Your task to perform on an android device: find snoozed emails in the gmail app Image 0: 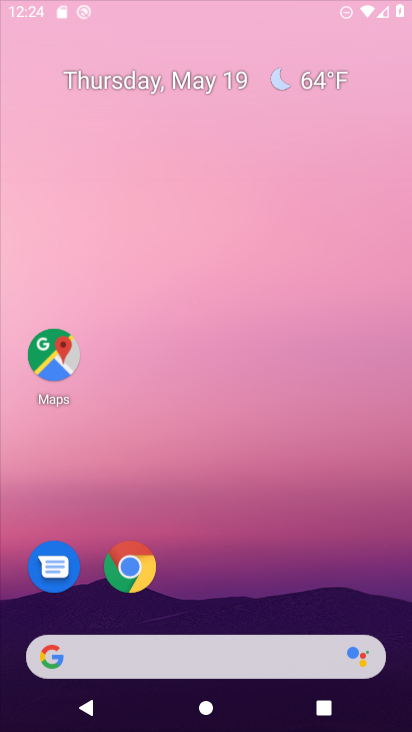
Step 0: drag from (260, 547) to (243, 59)
Your task to perform on an android device: find snoozed emails in the gmail app Image 1: 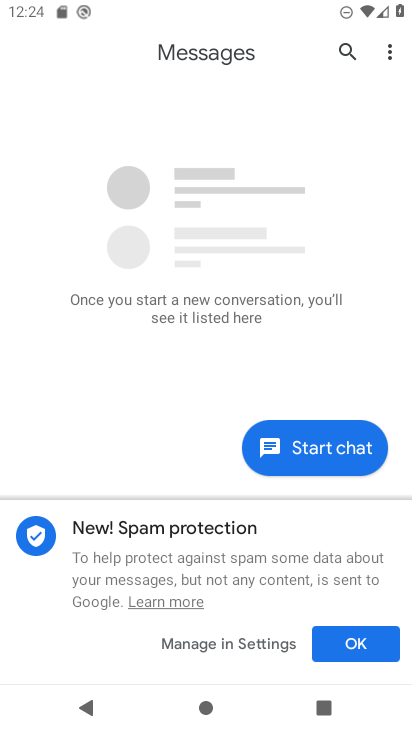
Step 1: press home button
Your task to perform on an android device: find snoozed emails in the gmail app Image 2: 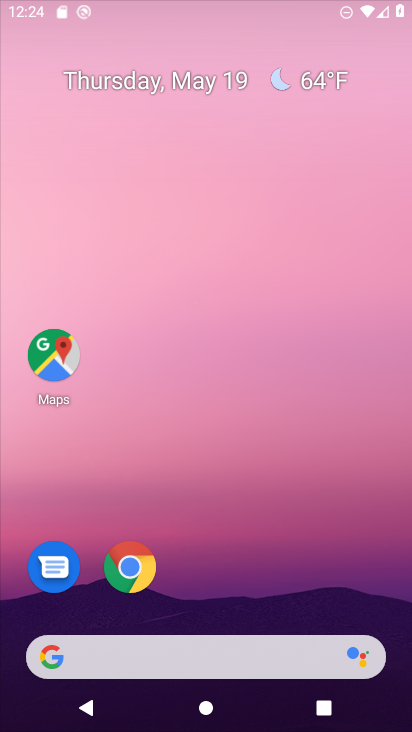
Step 2: drag from (299, 610) to (310, 112)
Your task to perform on an android device: find snoozed emails in the gmail app Image 3: 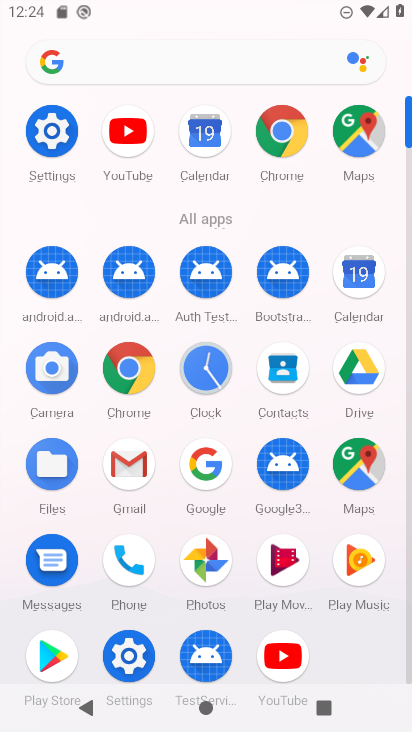
Step 3: click (124, 468)
Your task to perform on an android device: find snoozed emails in the gmail app Image 4: 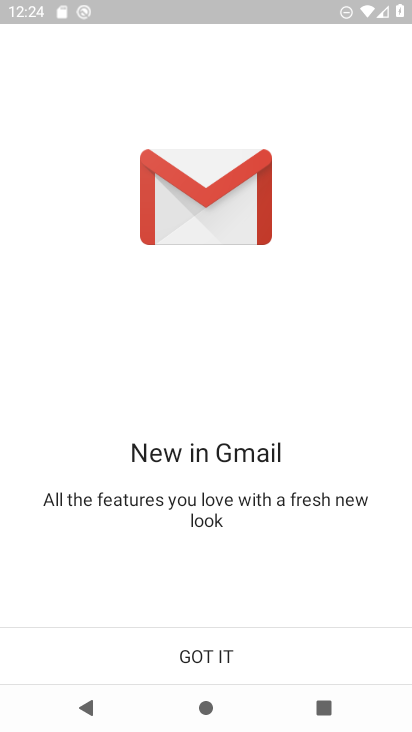
Step 4: click (202, 664)
Your task to perform on an android device: find snoozed emails in the gmail app Image 5: 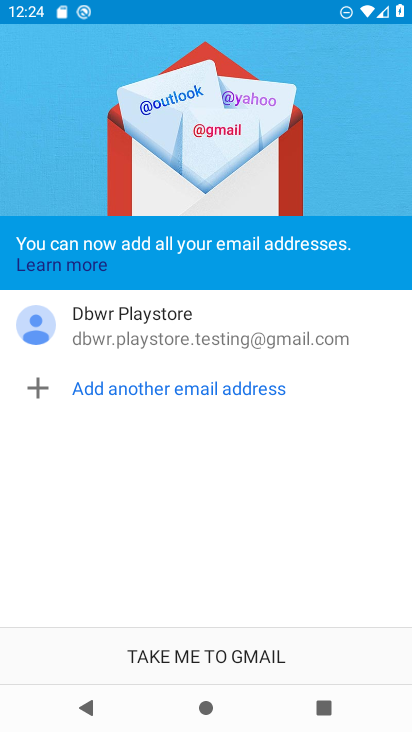
Step 5: click (202, 664)
Your task to perform on an android device: find snoozed emails in the gmail app Image 6: 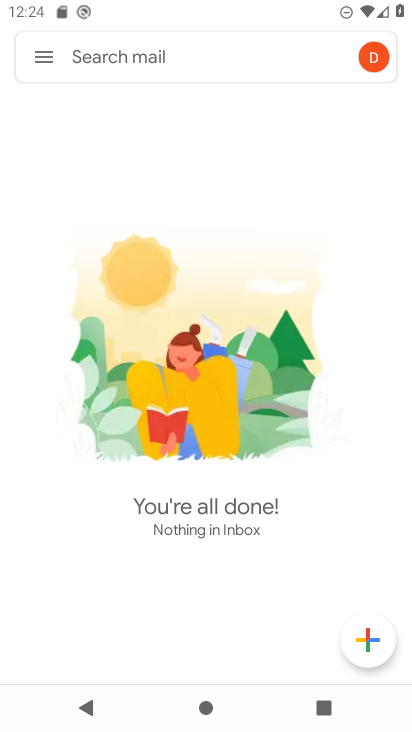
Step 6: click (46, 56)
Your task to perform on an android device: find snoozed emails in the gmail app Image 7: 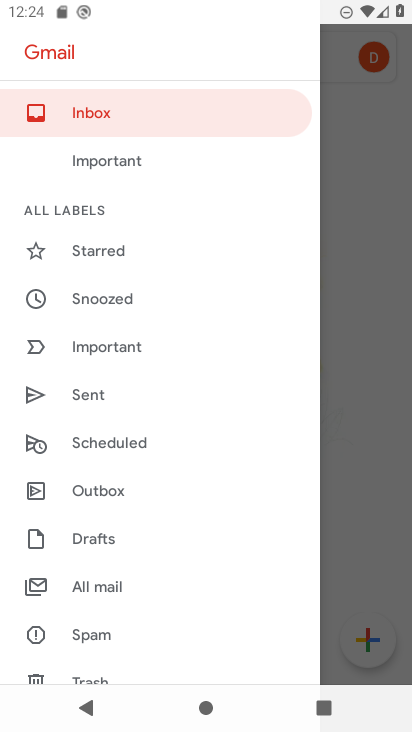
Step 7: click (122, 299)
Your task to perform on an android device: find snoozed emails in the gmail app Image 8: 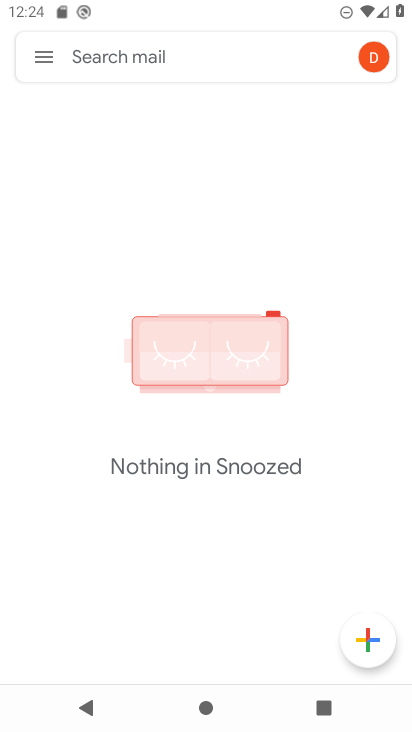
Step 8: task complete